Your task to perform on an android device: Open Chrome and go to the settings page Image 0: 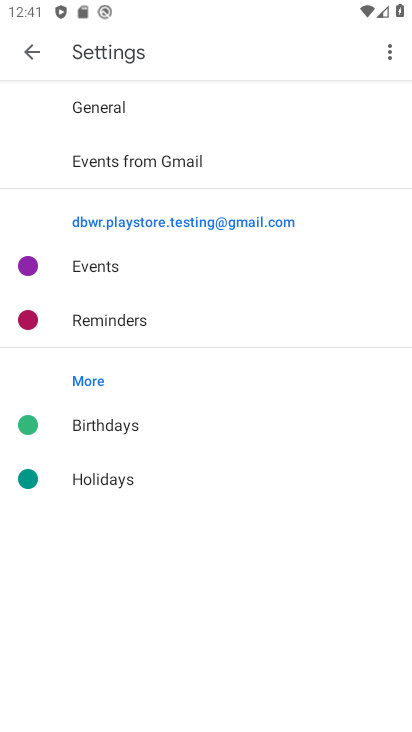
Step 0: click (6, 79)
Your task to perform on an android device: Open Chrome and go to the settings page Image 1: 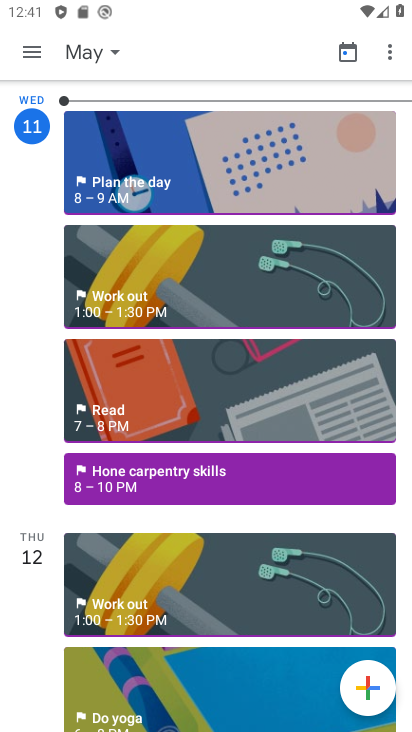
Step 1: press home button
Your task to perform on an android device: Open Chrome and go to the settings page Image 2: 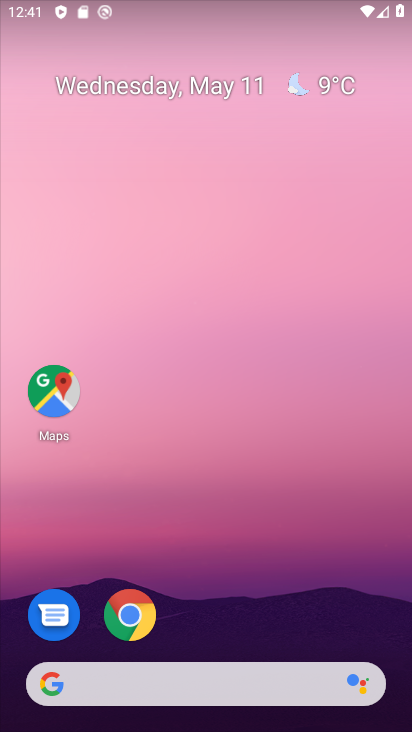
Step 2: click (145, 626)
Your task to perform on an android device: Open Chrome and go to the settings page Image 3: 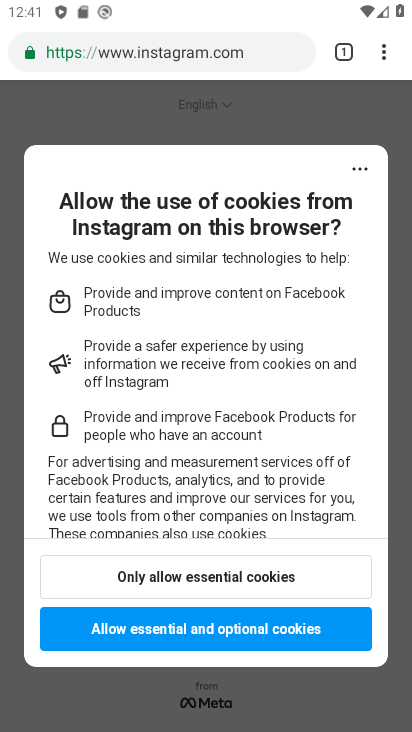
Step 3: click (379, 67)
Your task to perform on an android device: Open Chrome and go to the settings page Image 4: 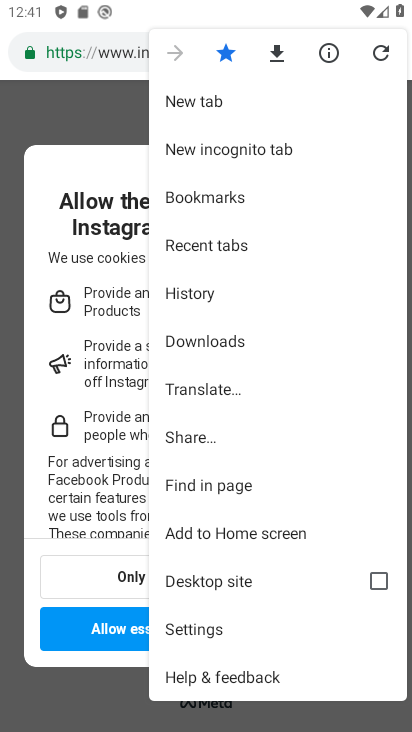
Step 4: click (207, 617)
Your task to perform on an android device: Open Chrome and go to the settings page Image 5: 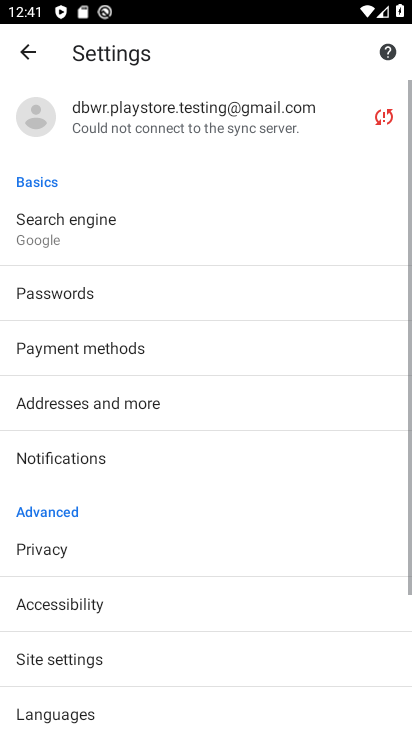
Step 5: task complete